Your task to perform on an android device: Go to Maps Image 0: 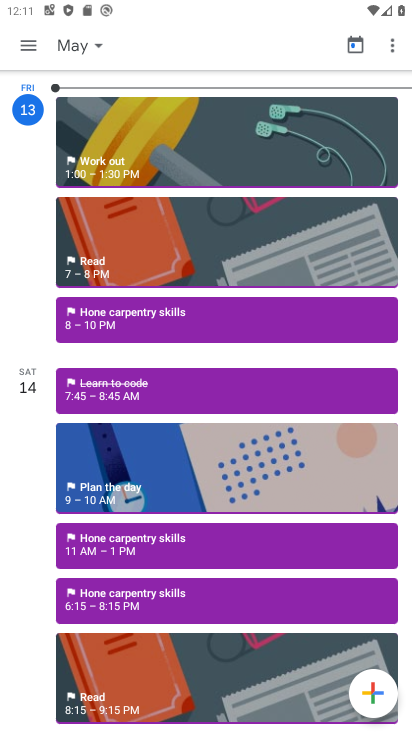
Step 0: press home button
Your task to perform on an android device: Go to Maps Image 1: 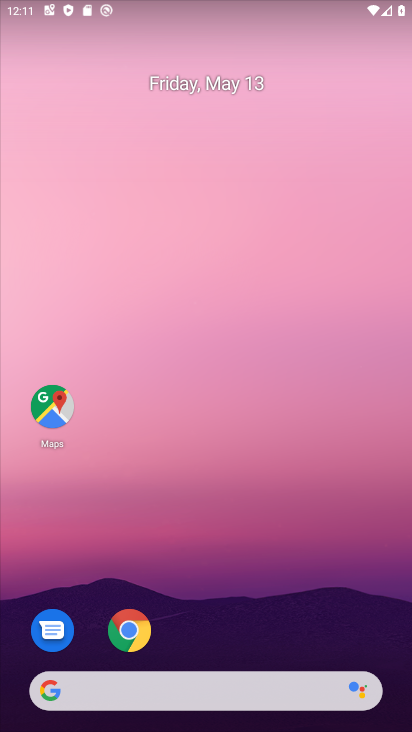
Step 1: drag from (319, 610) to (316, 187)
Your task to perform on an android device: Go to Maps Image 2: 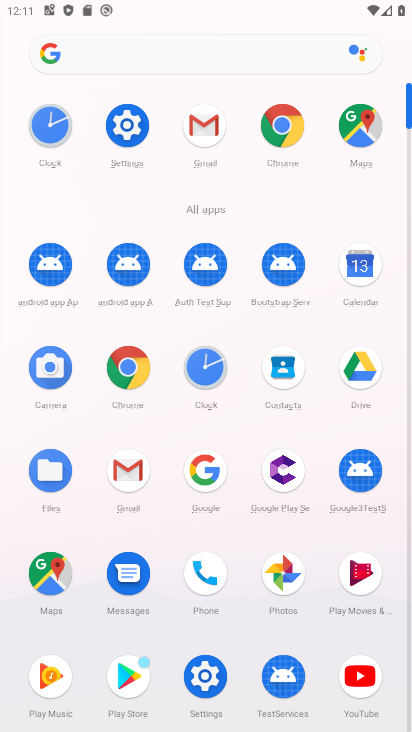
Step 2: click (347, 116)
Your task to perform on an android device: Go to Maps Image 3: 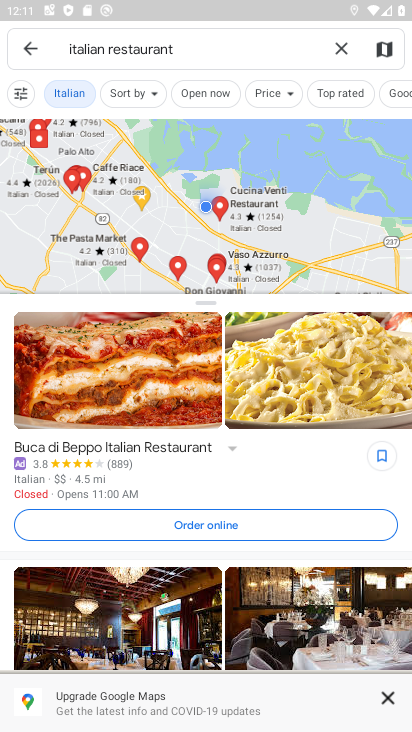
Step 3: task complete